Your task to perform on an android device: Open CNN.com Image 0: 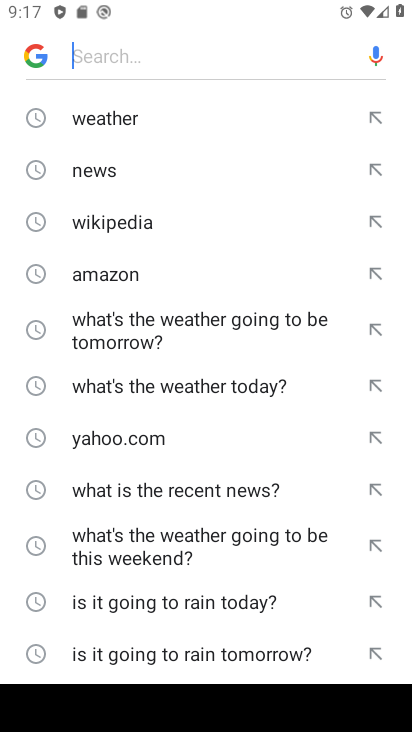
Step 0: press back button
Your task to perform on an android device: Open CNN.com Image 1: 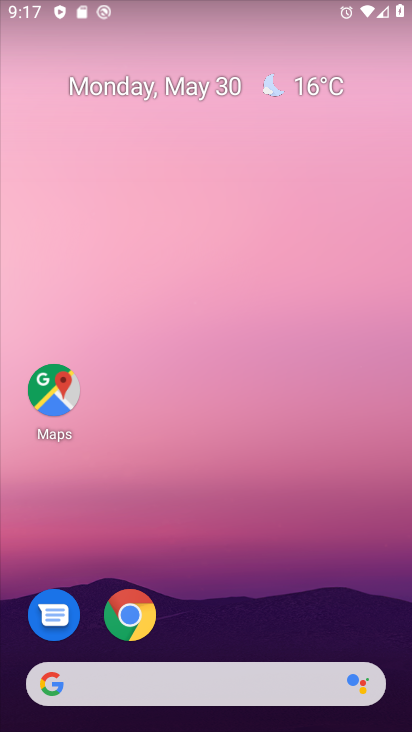
Step 1: click (117, 611)
Your task to perform on an android device: Open CNN.com Image 2: 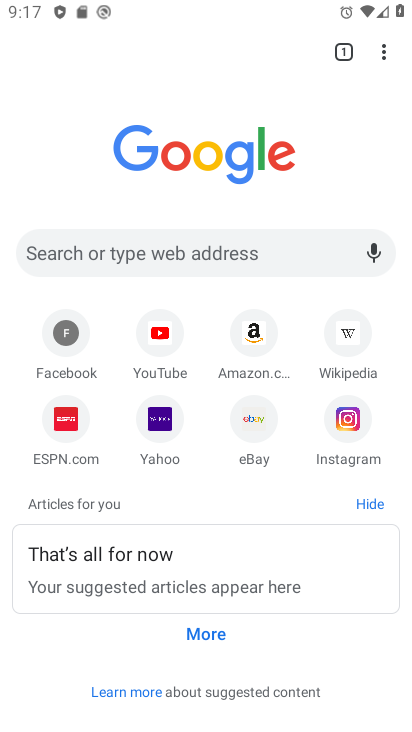
Step 2: click (125, 260)
Your task to perform on an android device: Open CNN.com Image 3: 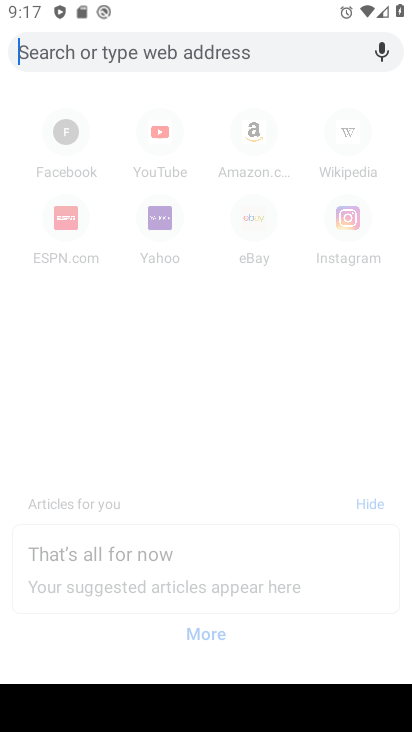
Step 3: type "cnn.com"
Your task to perform on an android device: Open CNN.com Image 4: 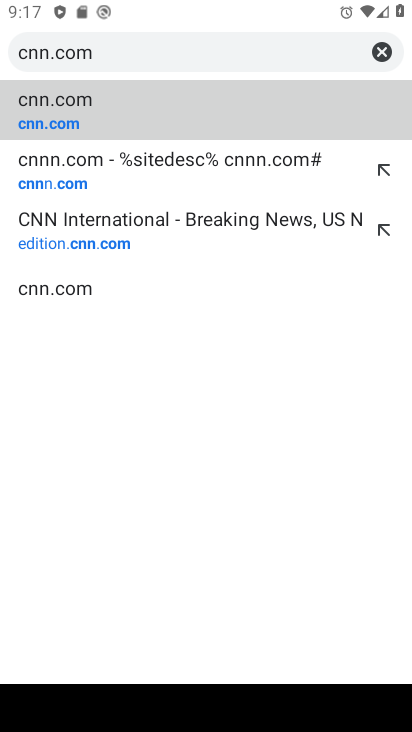
Step 4: click (106, 112)
Your task to perform on an android device: Open CNN.com Image 5: 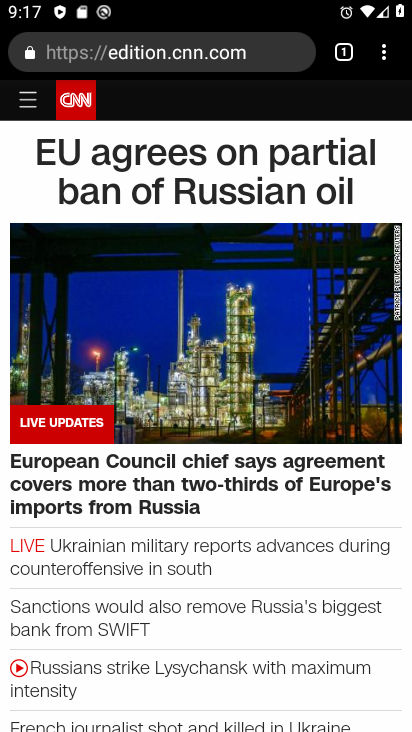
Step 5: drag from (206, 622) to (288, 113)
Your task to perform on an android device: Open CNN.com Image 6: 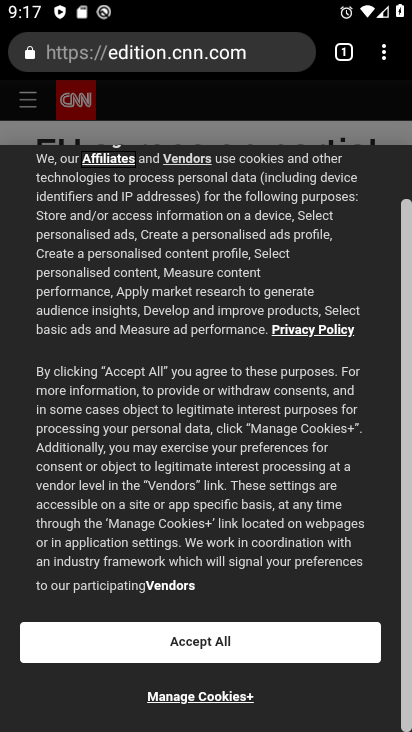
Step 6: click (197, 650)
Your task to perform on an android device: Open CNN.com Image 7: 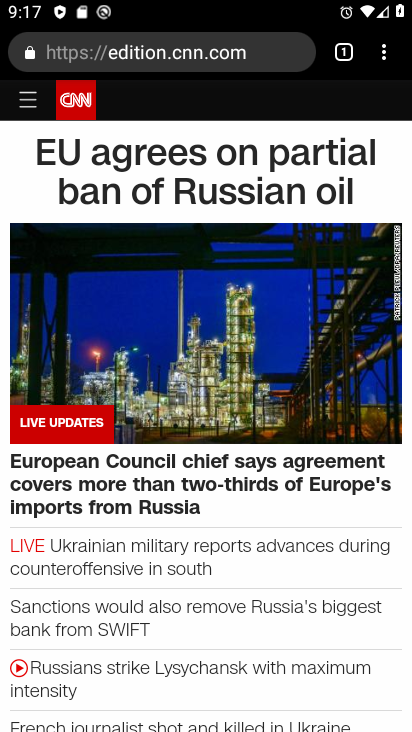
Step 7: task complete